Your task to perform on an android device: Open calendar and show me the third week of next month Image 0: 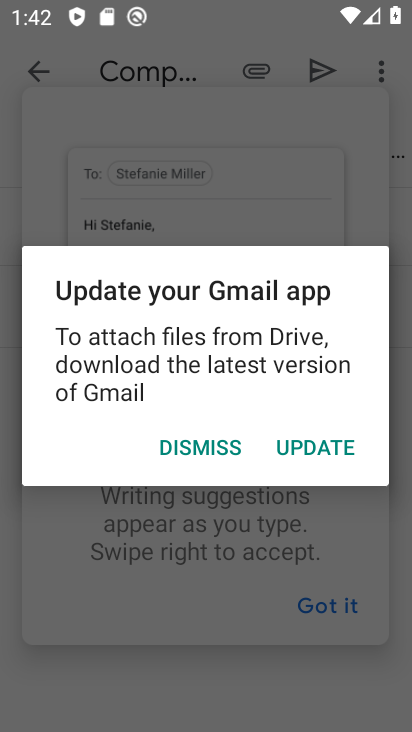
Step 0: press home button
Your task to perform on an android device: Open calendar and show me the third week of next month Image 1: 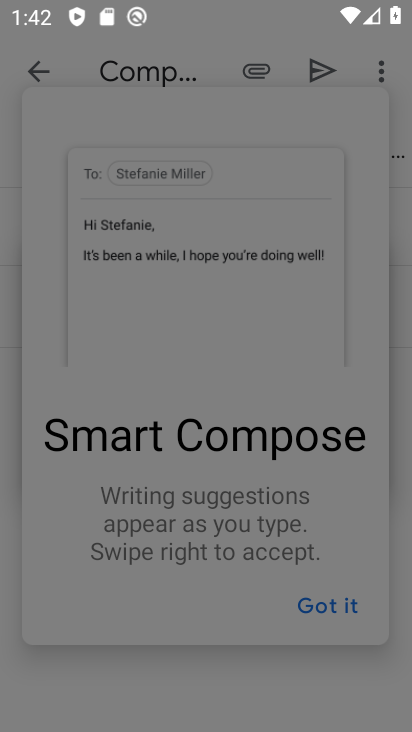
Step 1: drag from (233, 622) to (253, 120)
Your task to perform on an android device: Open calendar and show me the third week of next month Image 2: 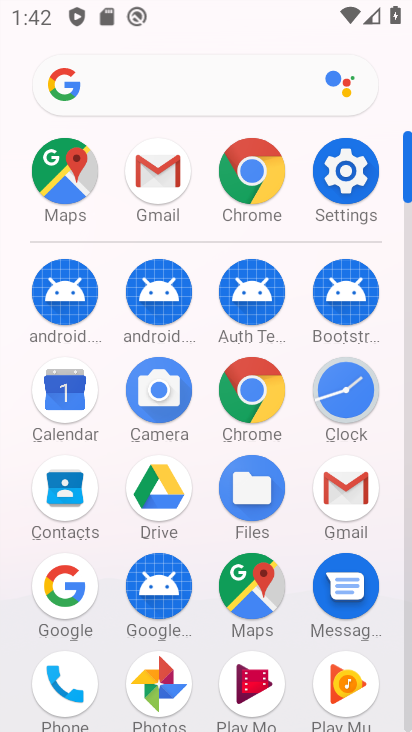
Step 2: click (49, 400)
Your task to perform on an android device: Open calendar and show me the third week of next month Image 3: 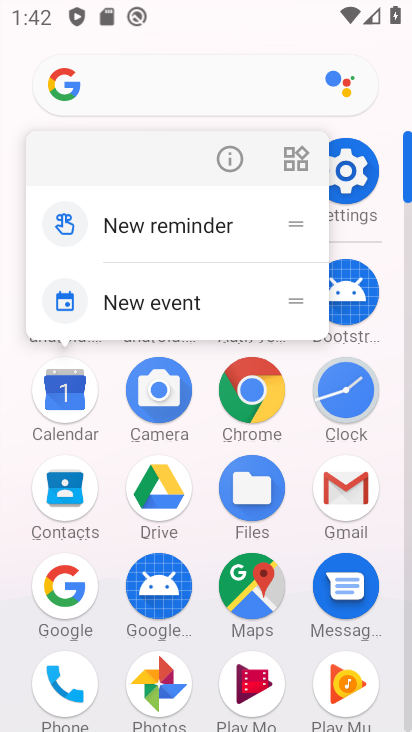
Step 3: click (237, 155)
Your task to perform on an android device: Open calendar and show me the third week of next month Image 4: 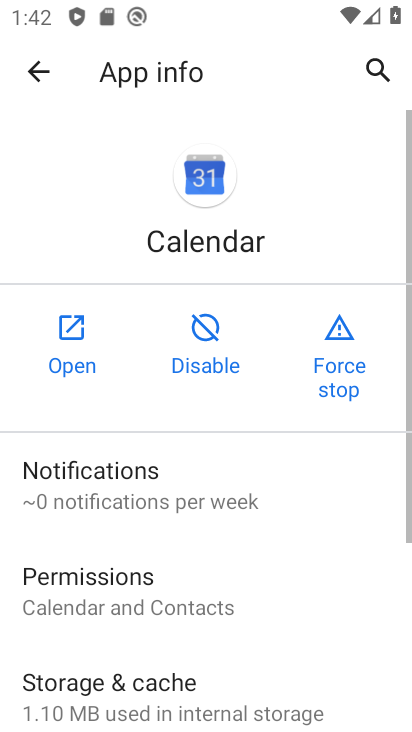
Step 4: click (61, 337)
Your task to perform on an android device: Open calendar and show me the third week of next month Image 5: 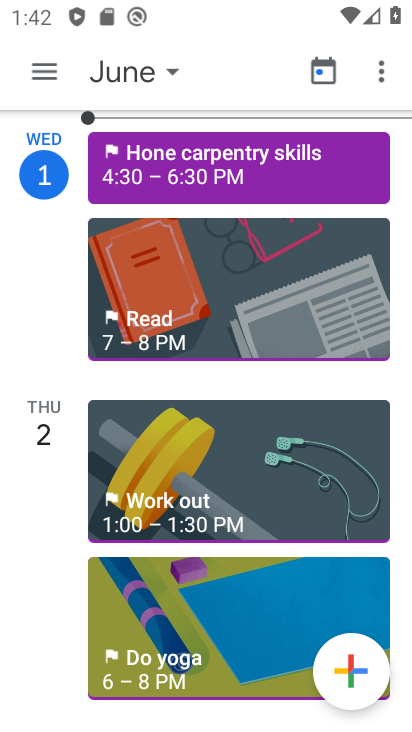
Step 5: click (133, 60)
Your task to perform on an android device: Open calendar and show me the third week of next month Image 6: 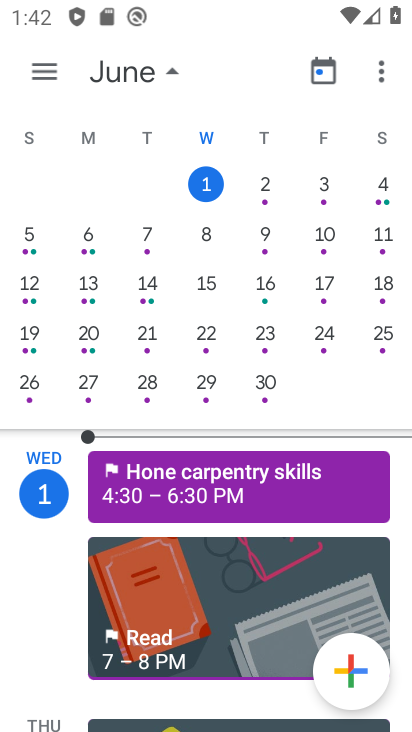
Step 6: drag from (331, 221) to (14, 293)
Your task to perform on an android device: Open calendar and show me the third week of next month Image 7: 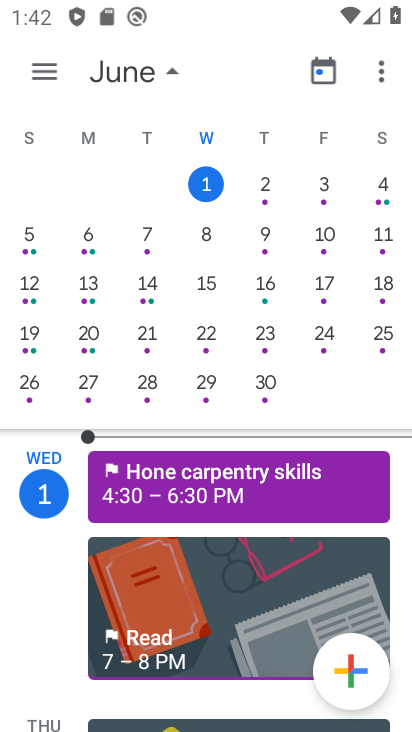
Step 7: drag from (323, 260) to (16, 667)
Your task to perform on an android device: Open calendar and show me the third week of next month Image 8: 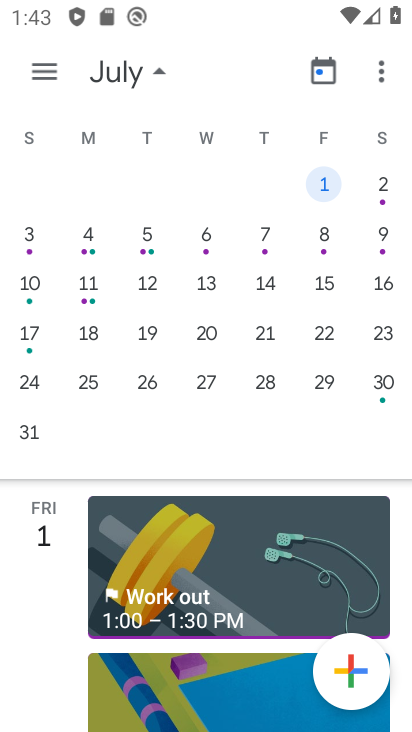
Step 8: click (315, 289)
Your task to perform on an android device: Open calendar and show me the third week of next month Image 9: 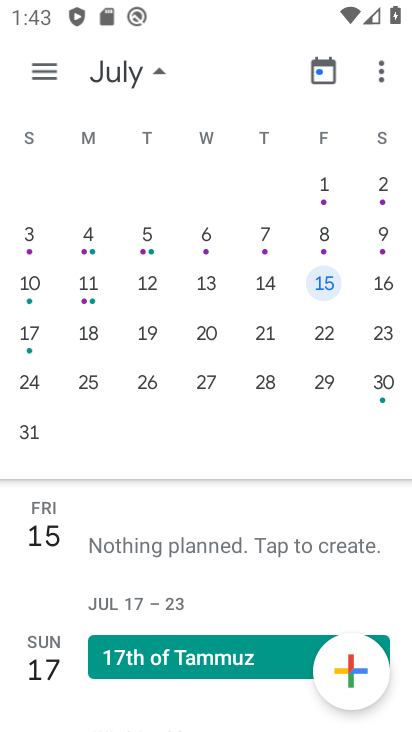
Step 9: task complete